Your task to perform on an android device: Go to display settings Image 0: 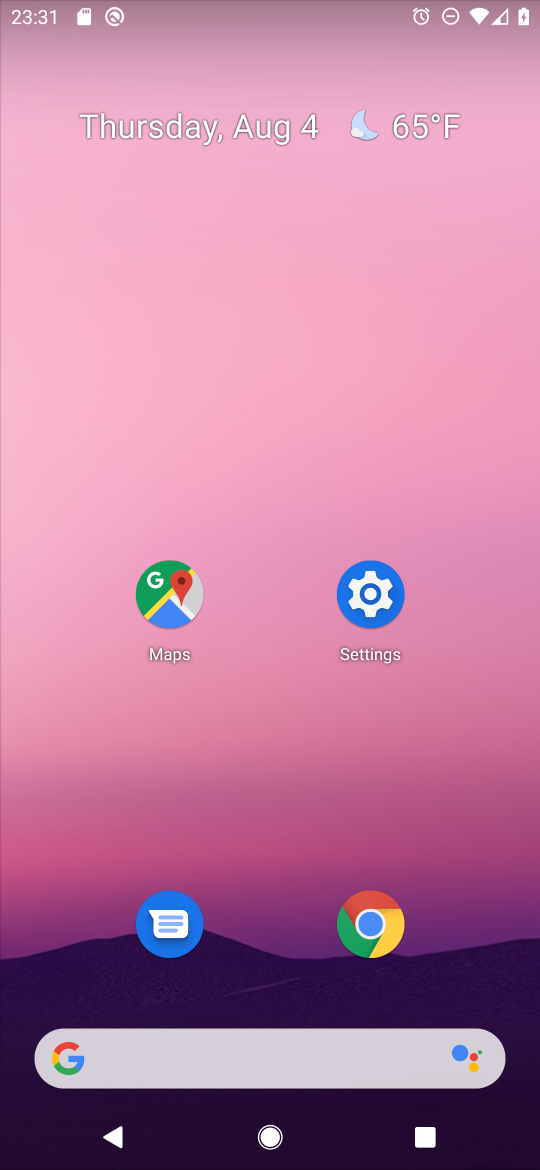
Step 0: press home button
Your task to perform on an android device: Go to display settings Image 1: 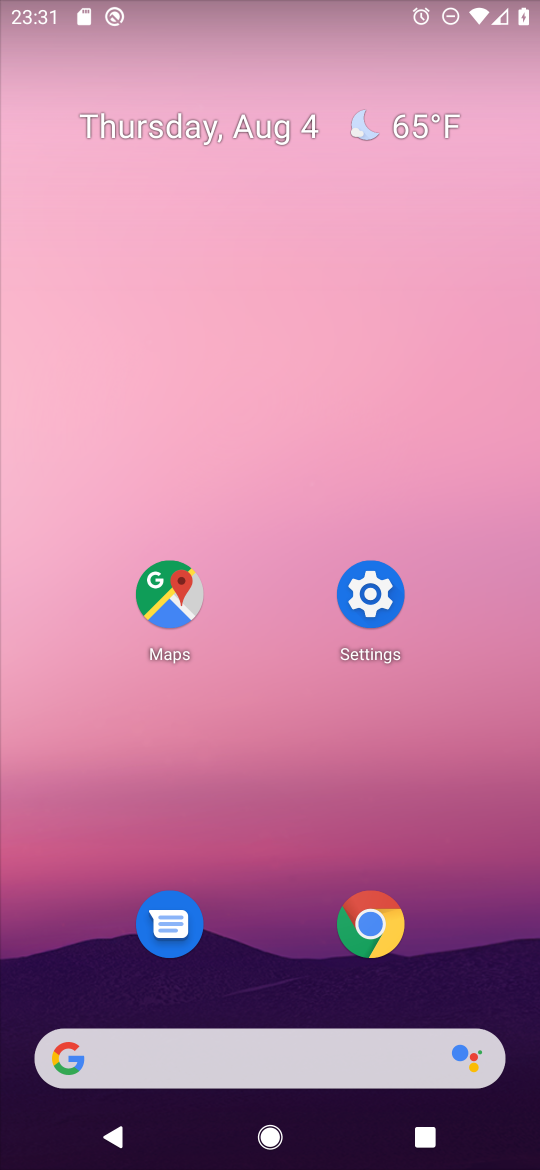
Step 1: click (375, 590)
Your task to perform on an android device: Go to display settings Image 2: 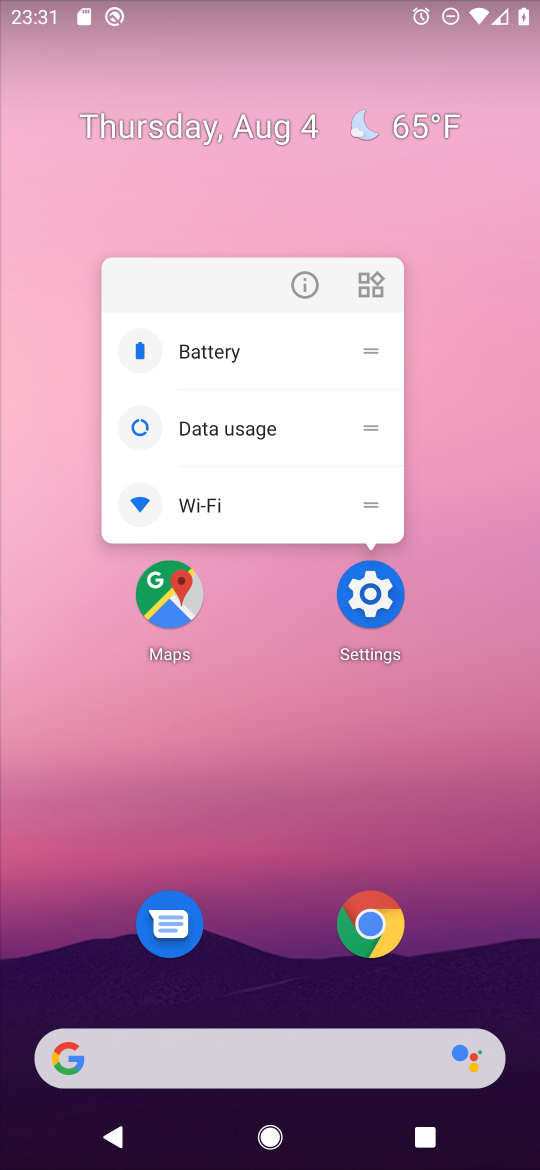
Step 2: click (375, 588)
Your task to perform on an android device: Go to display settings Image 3: 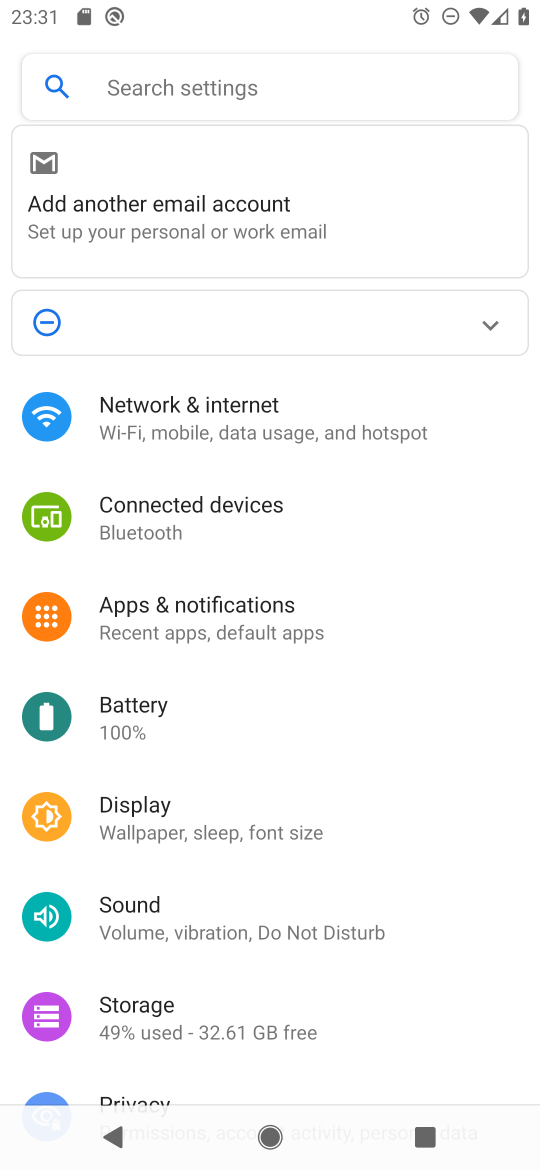
Step 3: click (152, 821)
Your task to perform on an android device: Go to display settings Image 4: 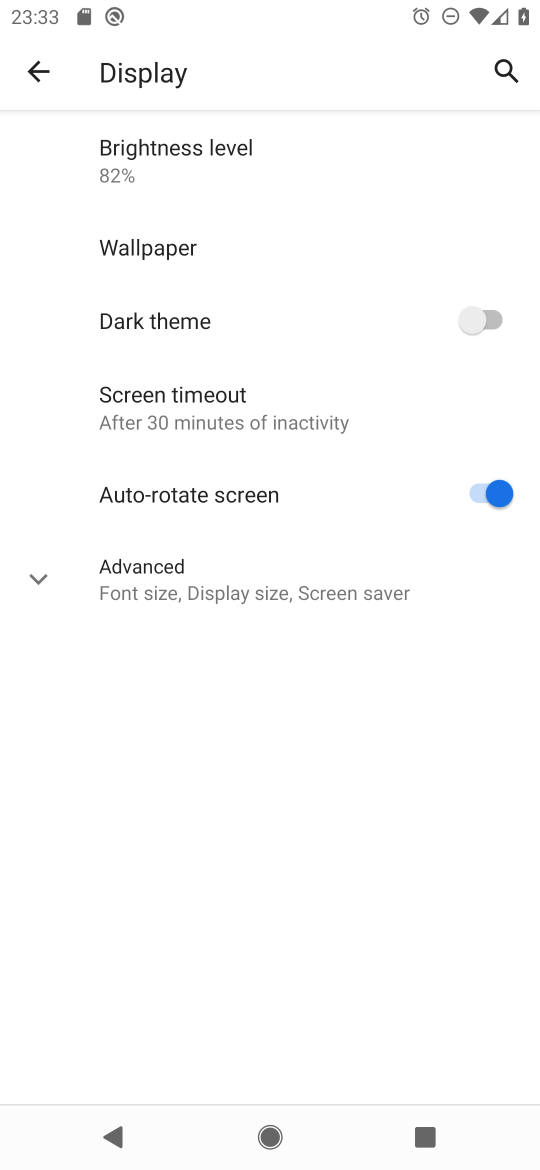
Step 4: task complete